Your task to perform on an android device: turn on notifications settings in the gmail app Image 0: 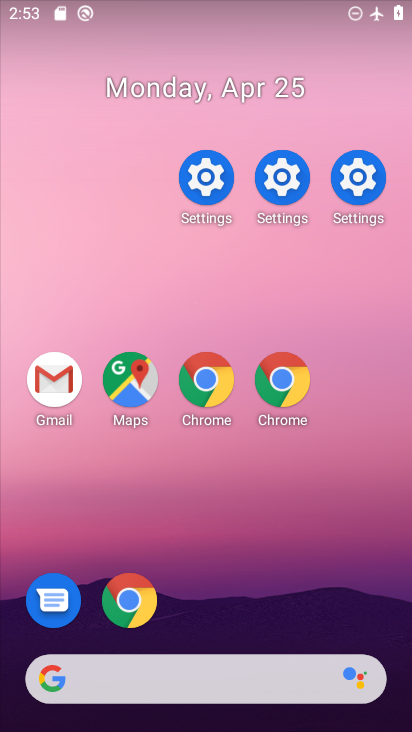
Step 0: drag from (292, 713) to (120, 84)
Your task to perform on an android device: turn on notifications settings in the gmail app Image 1: 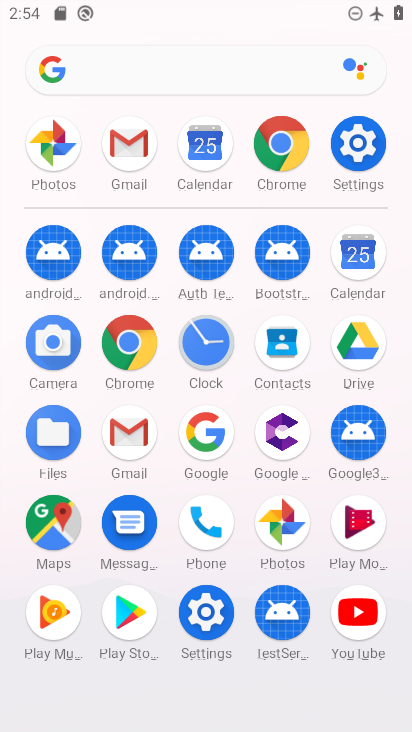
Step 1: click (120, 430)
Your task to perform on an android device: turn on notifications settings in the gmail app Image 2: 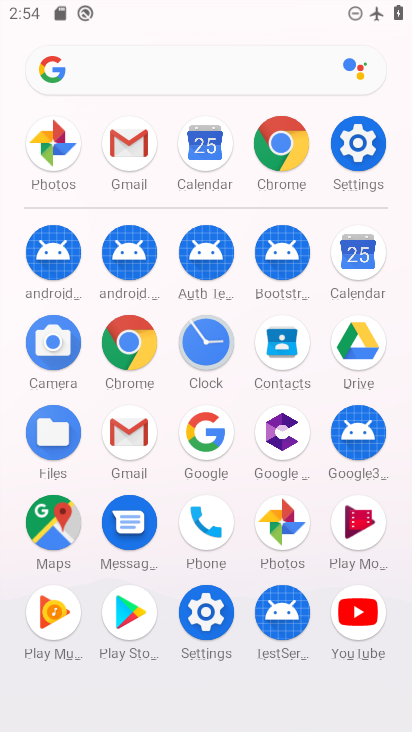
Step 2: click (120, 430)
Your task to perform on an android device: turn on notifications settings in the gmail app Image 3: 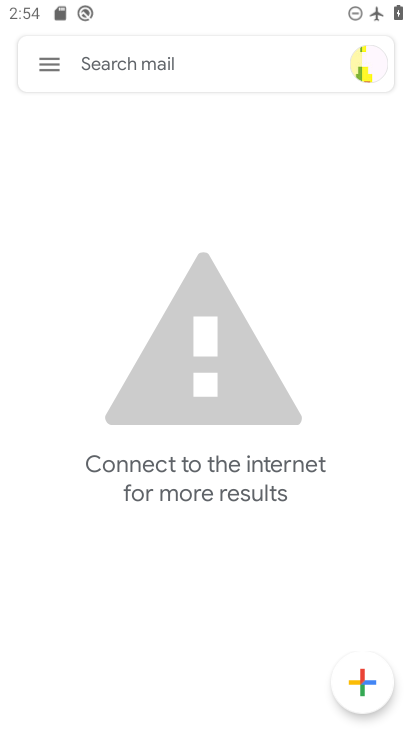
Step 3: click (120, 430)
Your task to perform on an android device: turn on notifications settings in the gmail app Image 4: 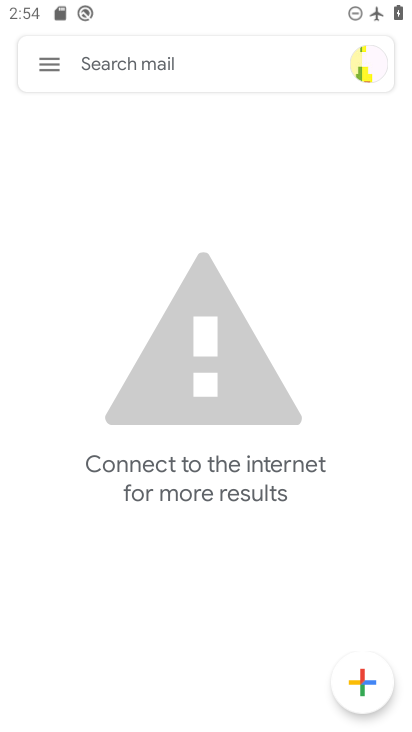
Step 4: click (49, 65)
Your task to perform on an android device: turn on notifications settings in the gmail app Image 5: 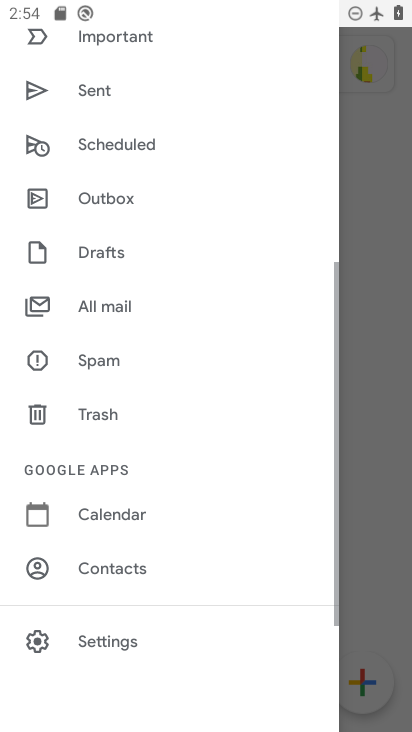
Step 5: click (49, 65)
Your task to perform on an android device: turn on notifications settings in the gmail app Image 6: 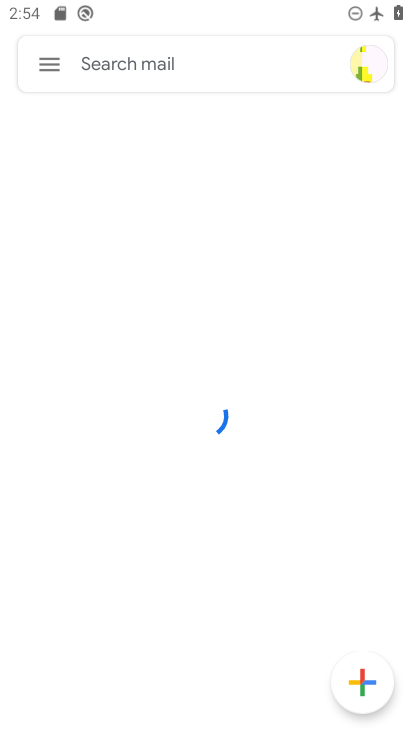
Step 6: click (48, 65)
Your task to perform on an android device: turn on notifications settings in the gmail app Image 7: 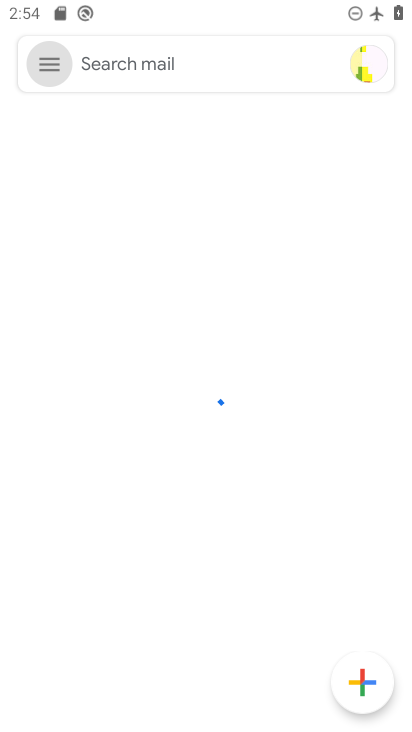
Step 7: click (48, 65)
Your task to perform on an android device: turn on notifications settings in the gmail app Image 8: 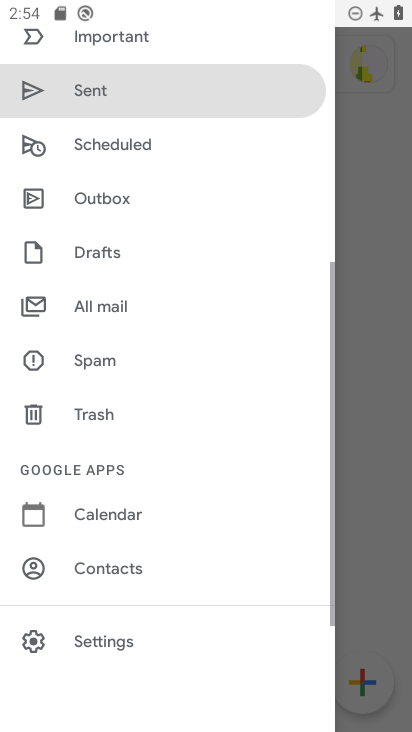
Step 8: click (48, 65)
Your task to perform on an android device: turn on notifications settings in the gmail app Image 9: 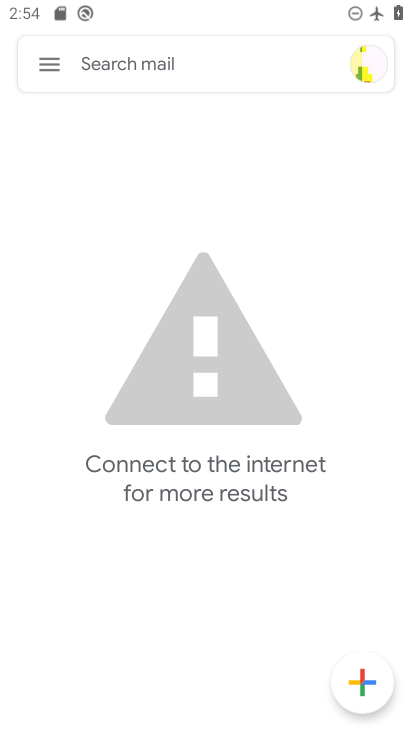
Step 9: click (47, 67)
Your task to perform on an android device: turn on notifications settings in the gmail app Image 10: 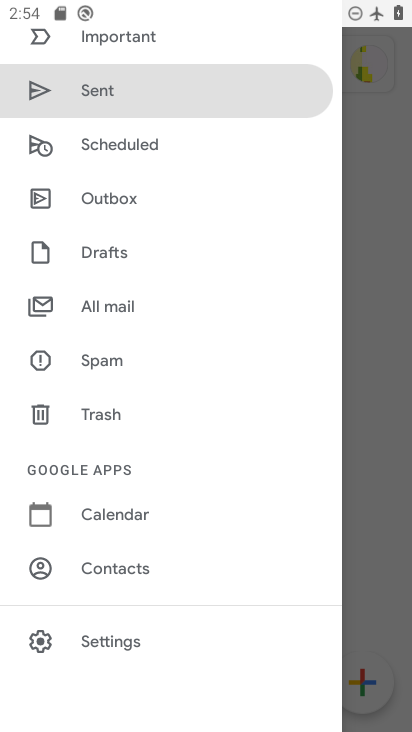
Step 10: click (101, 639)
Your task to perform on an android device: turn on notifications settings in the gmail app Image 11: 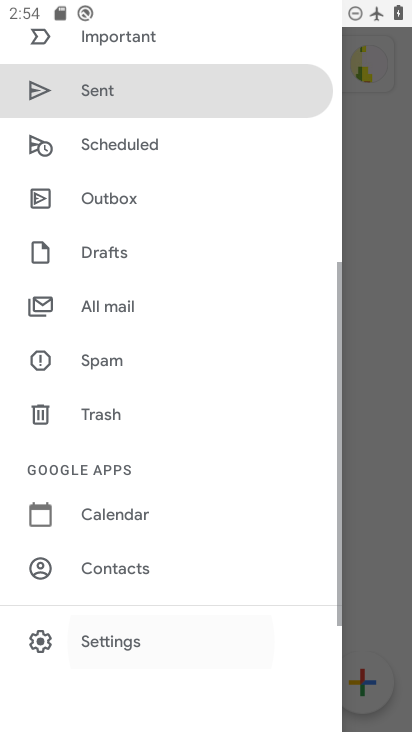
Step 11: click (101, 639)
Your task to perform on an android device: turn on notifications settings in the gmail app Image 12: 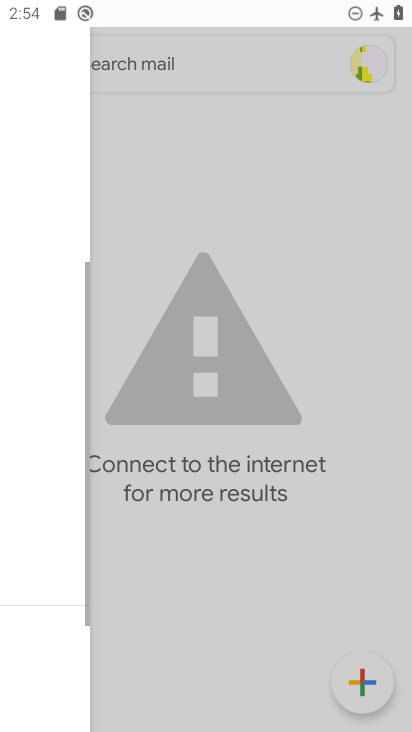
Step 12: click (101, 639)
Your task to perform on an android device: turn on notifications settings in the gmail app Image 13: 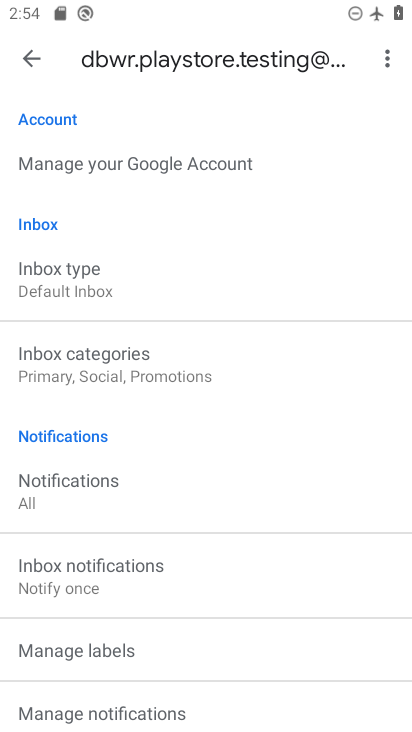
Step 13: click (51, 469)
Your task to perform on an android device: turn on notifications settings in the gmail app Image 14: 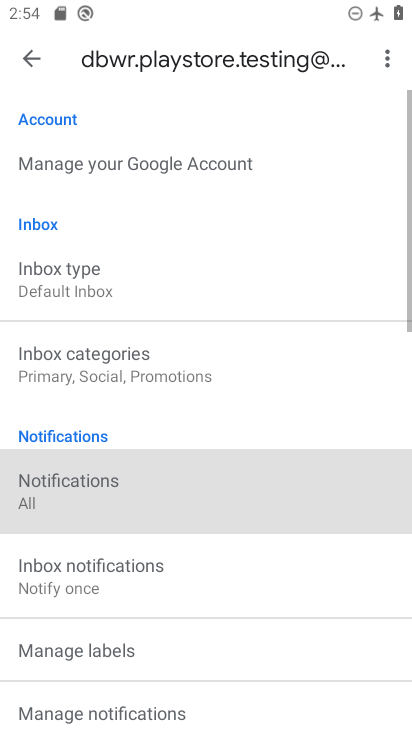
Step 14: click (51, 469)
Your task to perform on an android device: turn on notifications settings in the gmail app Image 15: 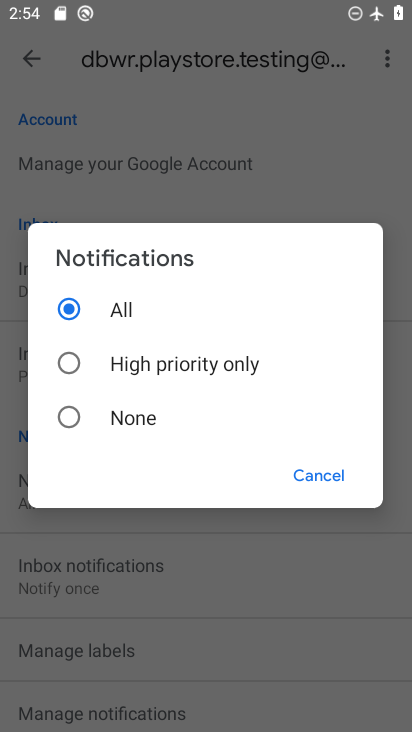
Step 15: click (66, 361)
Your task to perform on an android device: turn on notifications settings in the gmail app Image 16: 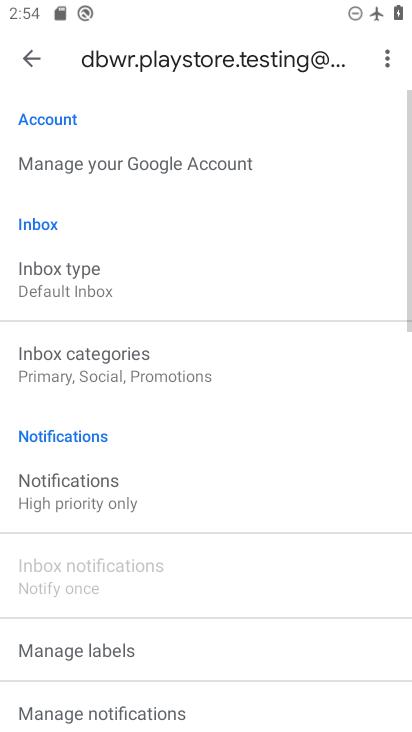
Step 16: click (62, 481)
Your task to perform on an android device: turn on notifications settings in the gmail app Image 17: 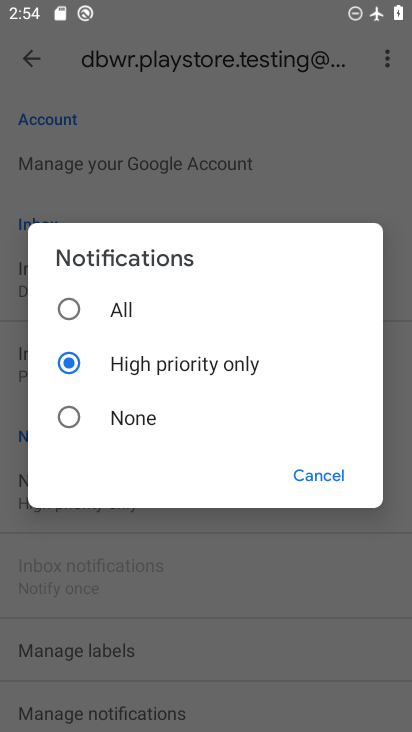
Step 17: click (58, 299)
Your task to perform on an android device: turn on notifications settings in the gmail app Image 18: 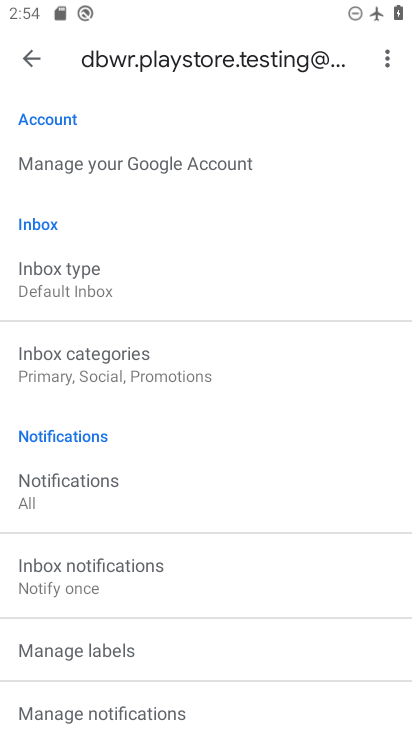
Step 18: task complete